Your task to perform on an android device: clear history in the chrome app Image 0: 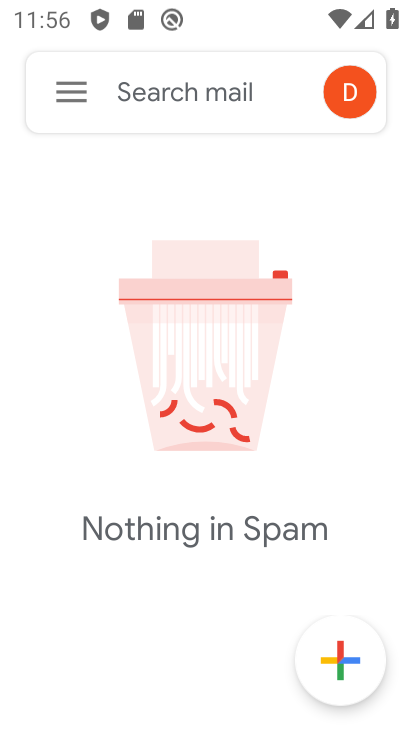
Step 0: press home button
Your task to perform on an android device: clear history in the chrome app Image 1: 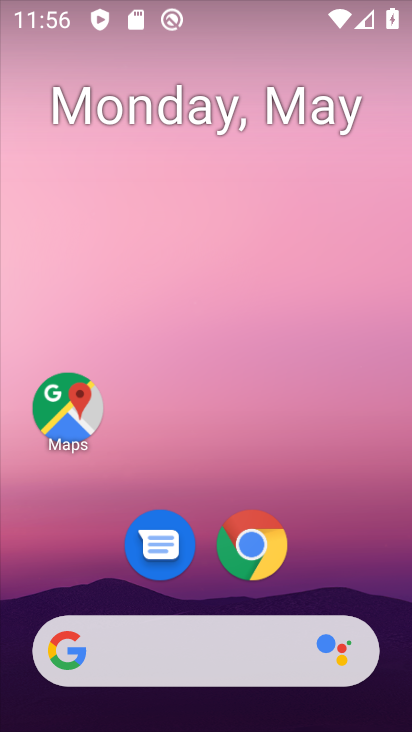
Step 1: click (258, 552)
Your task to perform on an android device: clear history in the chrome app Image 2: 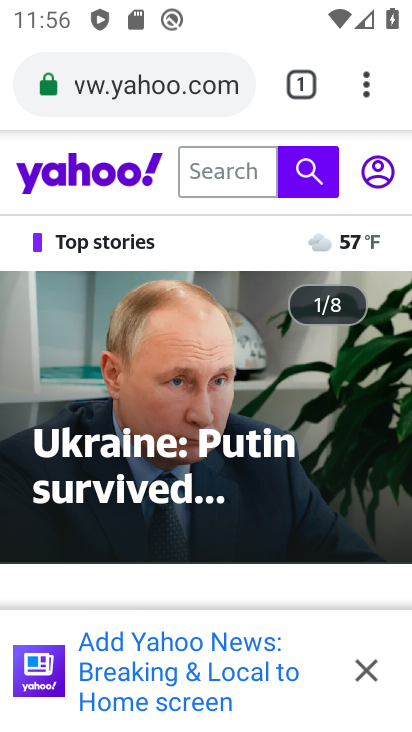
Step 2: click (377, 105)
Your task to perform on an android device: clear history in the chrome app Image 3: 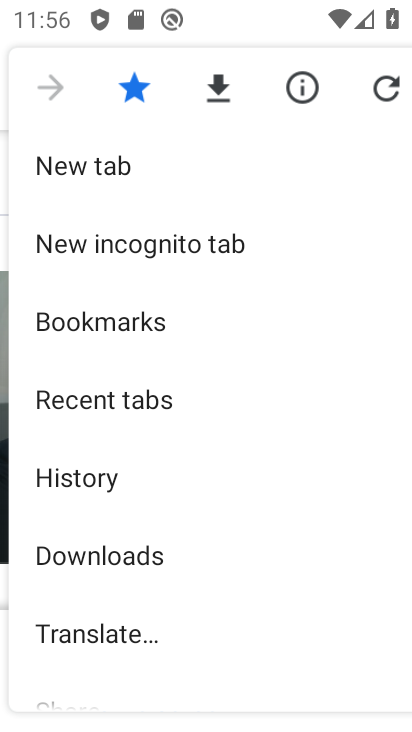
Step 3: click (119, 473)
Your task to perform on an android device: clear history in the chrome app Image 4: 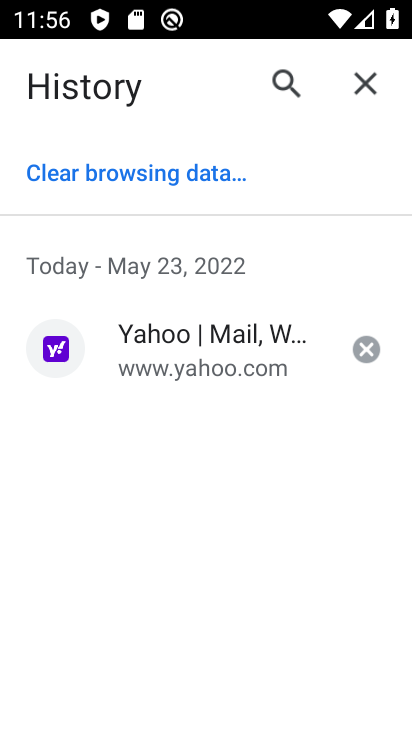
Step 4: click (115, 177)
Your task to perform on an android device: clear history in the chrome app Image 5: 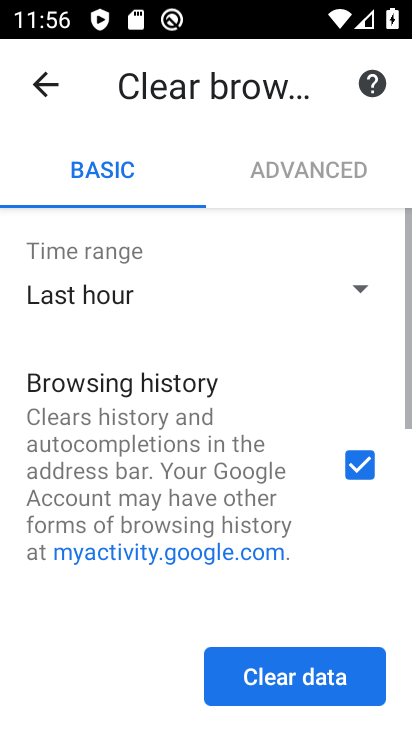
Step 5: click (307, 678)
Your task to perform on an android device: clear history in the chrome app Image 6: 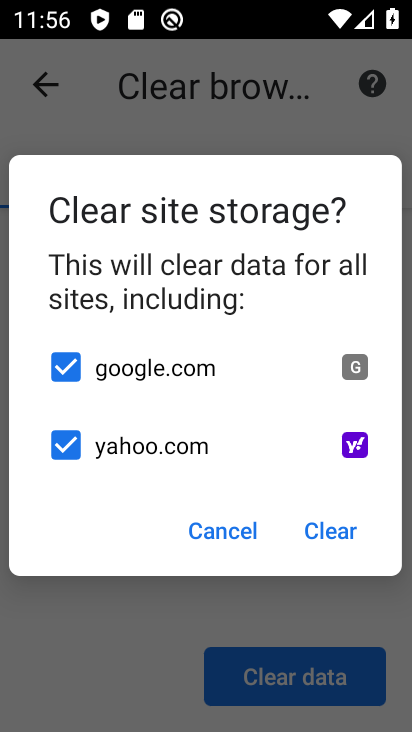
Step 6: click (362, 517)
Your task to perform on an android device: clear history in the chrome app Image 7: 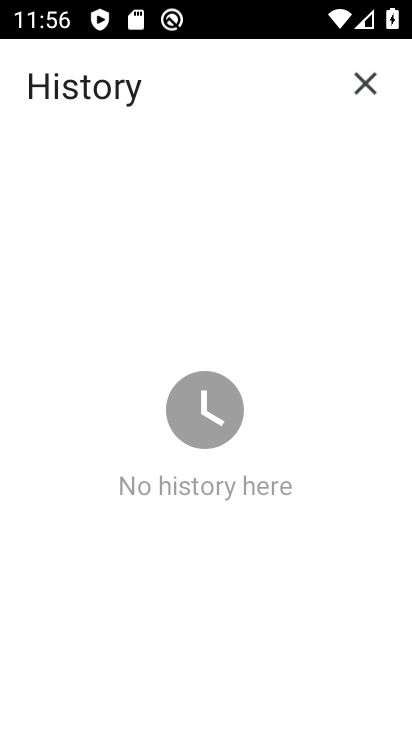
Step 7: task complete